Your task to perform on an android device: Open Maps and search for coffee Image 0: 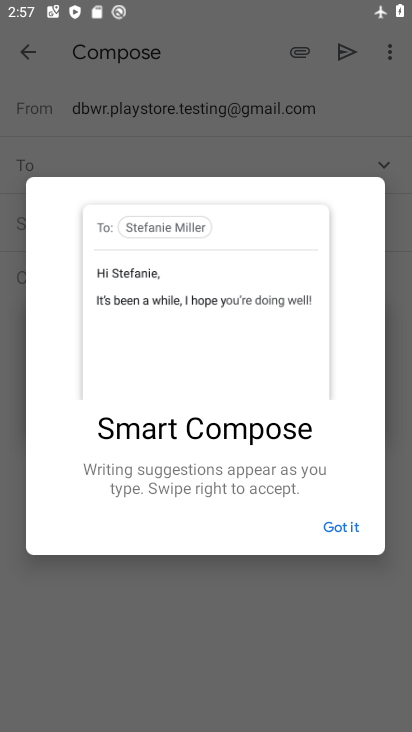
Step 0: press home button
Your task to perform on an android device: Open Maps and search for coffee Image 1: 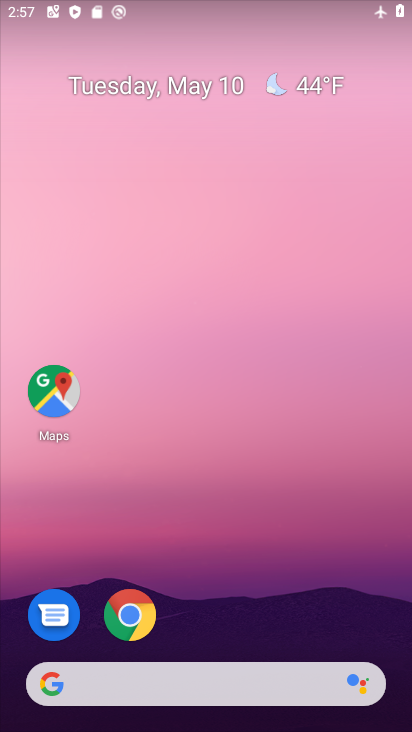
Step 1: drag from (233, 617) to (354, 138)
Your task to perform on an android device: Open Maps and search for coffee Image 2: 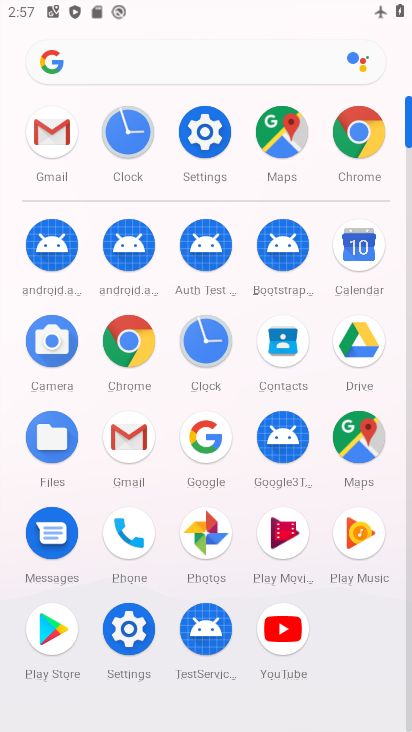
Step 2: click (359, 432)
Your task to perform on an android device: Open Maps and search for coffee Image 3: 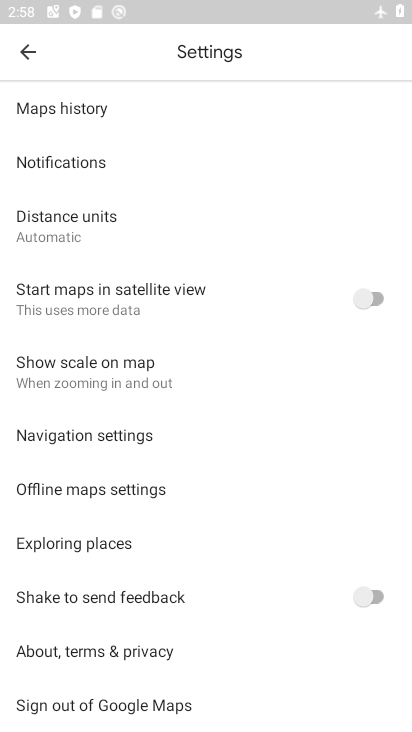
Step 3: click (40, 60)
Your task to perform on an android device: Open Maps and search for coffee Image 4: 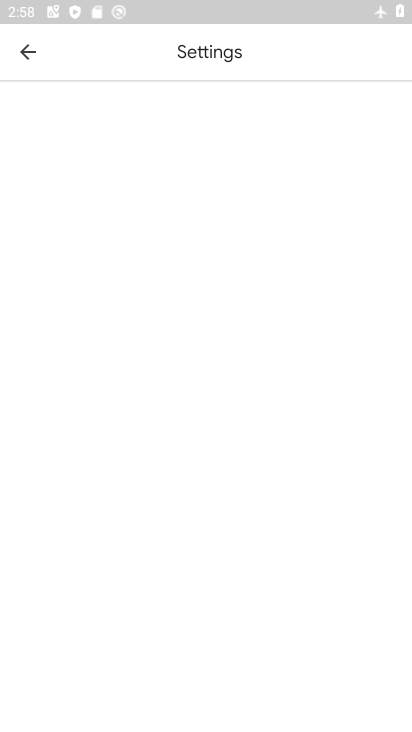
Step 4: click (21, 44)
Your task to perform on an android device: Open Maps and search for coffee Image 5: 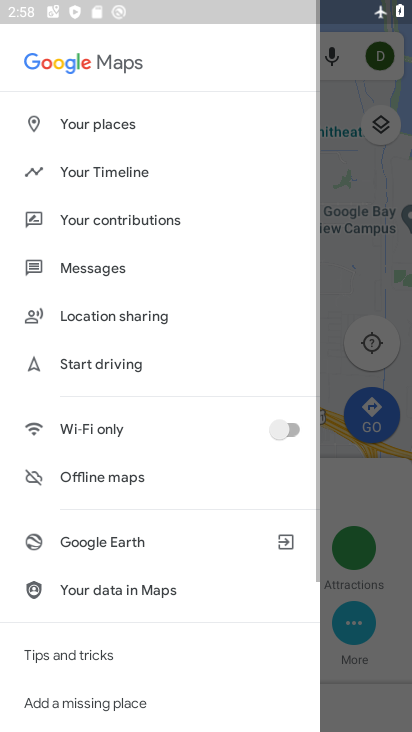
Step 5: click (25, 45)
Your task to perform on an android device: Open Maps and search for coffee Image 6: 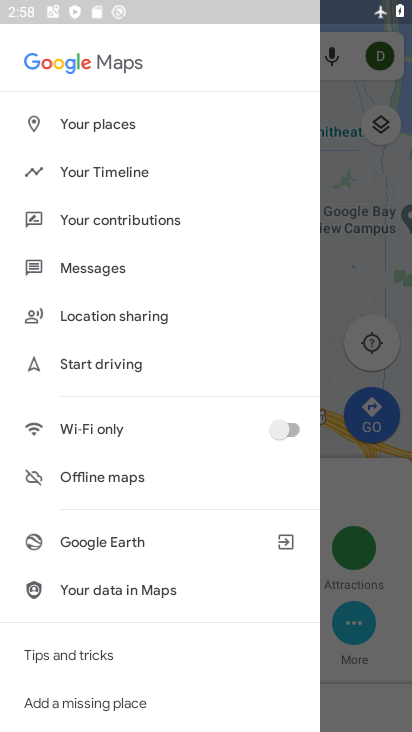
Step 6: click (390, 141)
Your task to perform on an android device: Open Maps and search for coffee Image 7: 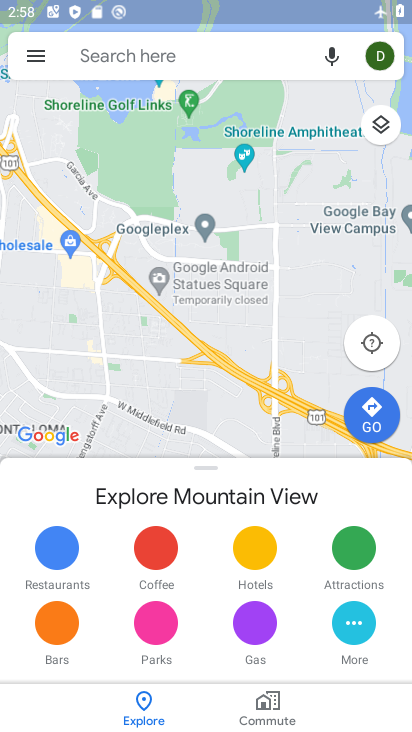
Step 7: drag from (290, 1) to (246, 724)
Your task to perform on an android device: Open Maps and search for coffee Image 8: 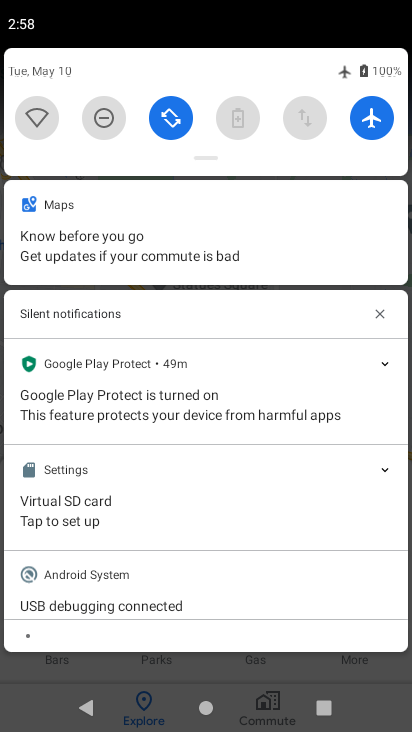
Step 8: click (370, 129)
Your task to perform on an android device: Open Maps and search for coffee Image 9: 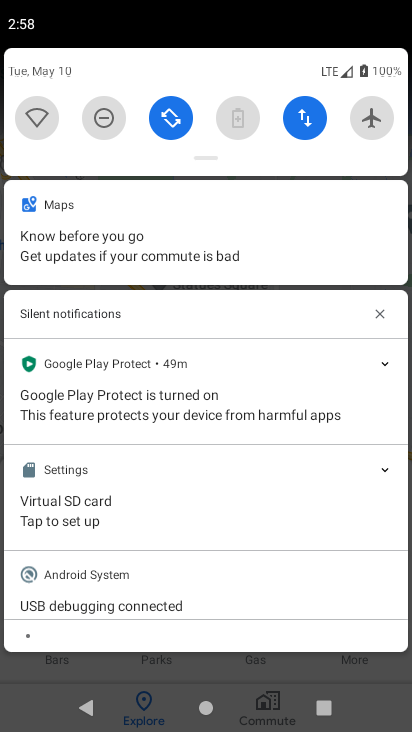
Step 9: drag from (259, 668) to (242, 36)
Your task to perform on an android device: Open Maps and search for coffee Image 10: 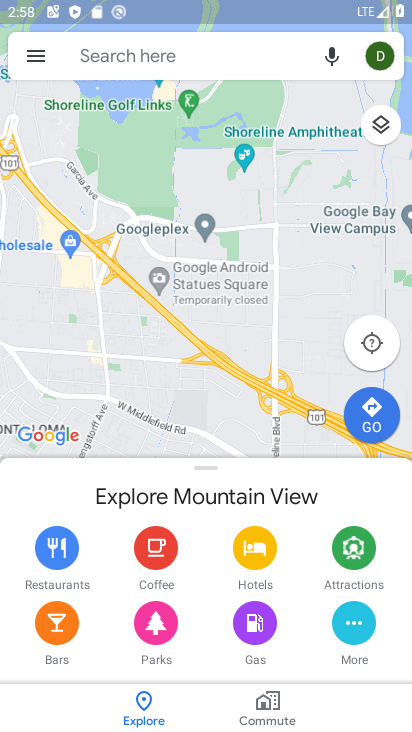
Step 10: click (242, 52)
Your task to perform on an android device: Open Maps and search for coffee Image 11: 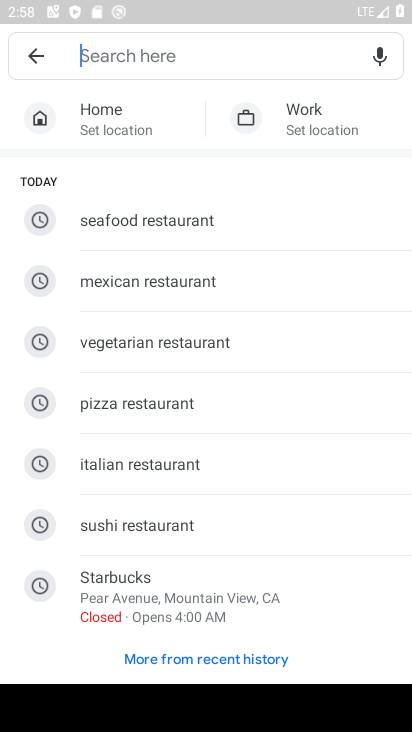
Step 11: click (242, 52)
Your task to perform on an android device: Open Maps and search for coffee Image 12: 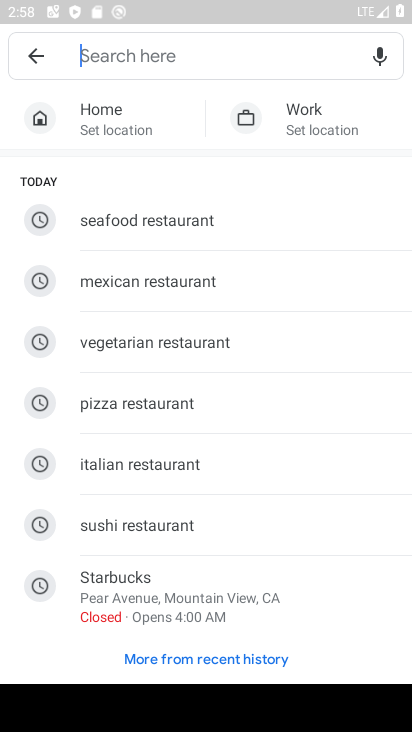
Step 12: type "coffee"
Your task to perform on an android device: Open Maps and search for coffee Image 13: 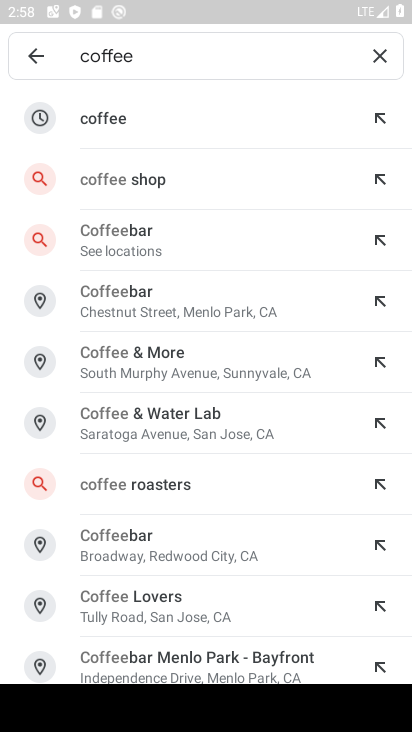
Step 13: click (168, 127)
Your task to perform on an android device: Open Maps and search for coffee Image 14: 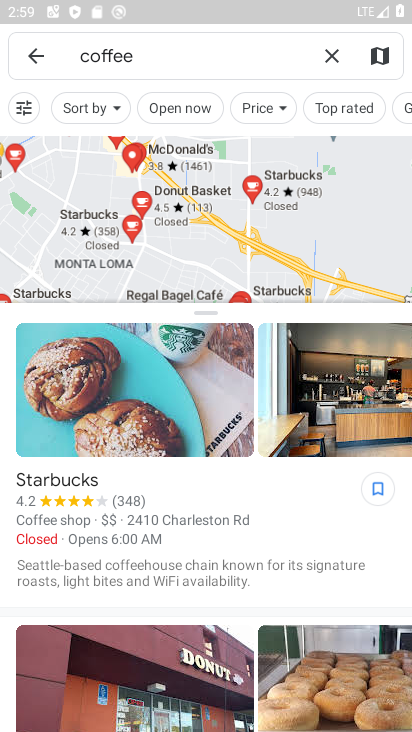
Step 14: task complete